Your task to perform on an android device: empty trash in the gmail app Image 0: 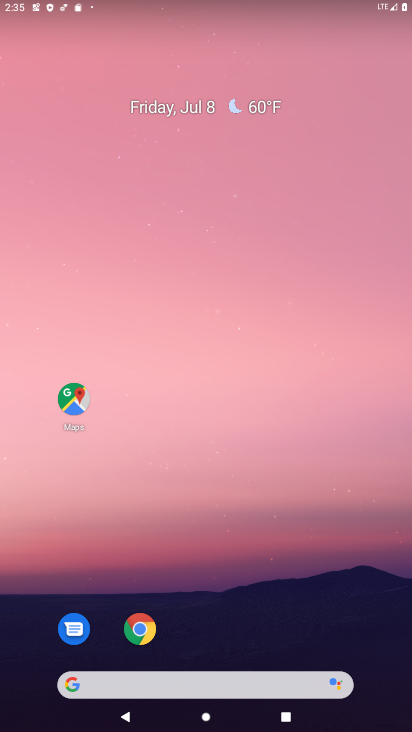
Step 0: drag from (194, 565) to (207, 208)
Your task to perform on an android device: empty trash in the gmail app Image 1: 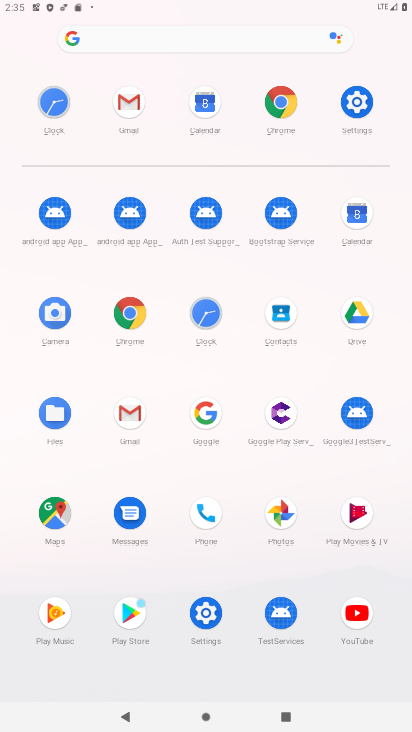
Step 1: click (138, 107)
Your task to perform on an android device: empty trash in the gmail app Image 2: 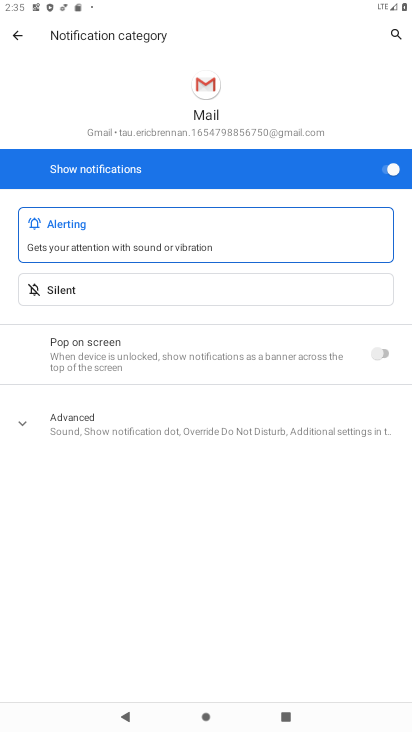
Step 2: click (11, 37)
Your task to perform on an android device: empty trash in the gmail app Image 3: 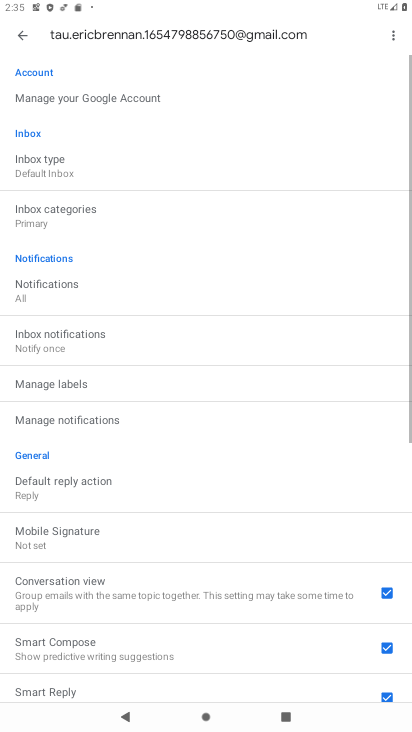
Step 3: click (22, 40)
Your task to perform on an android device: empty trash in the gmail app Image 4: 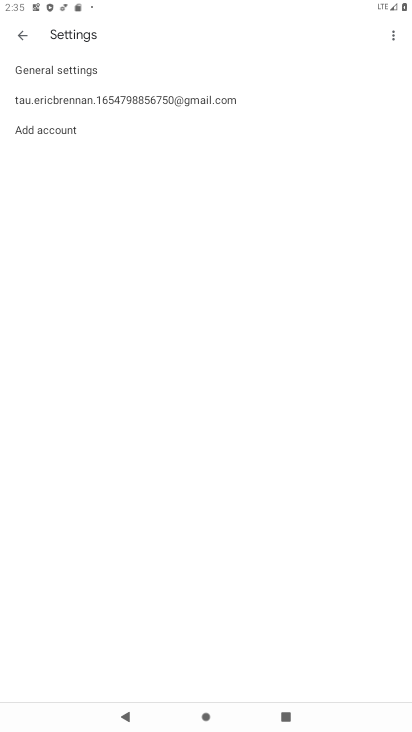
Step 4: click (23, 41)
Your task to perform on an android device: empty trash in the gmail app Image 5: 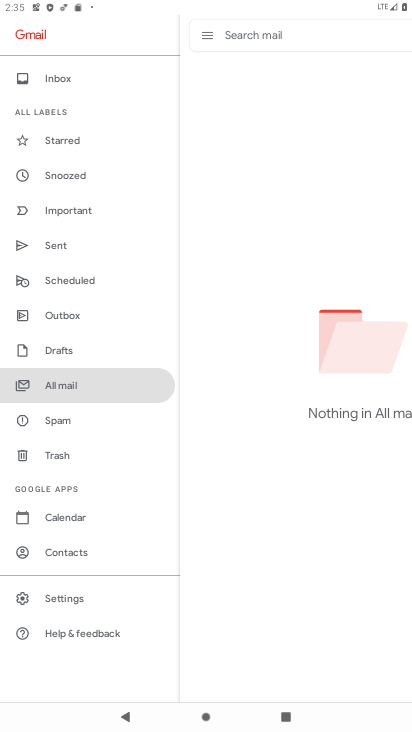
Step 5: click (79, 452)
Your task to perform on an android device: empty trash in the gmail app Image 6: 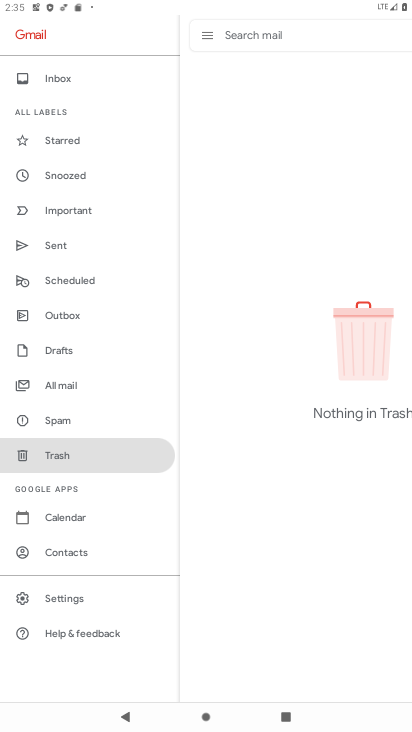
Step 6: task complete